Your task to perform on an android device: add a contact in the contacts app Image 0: 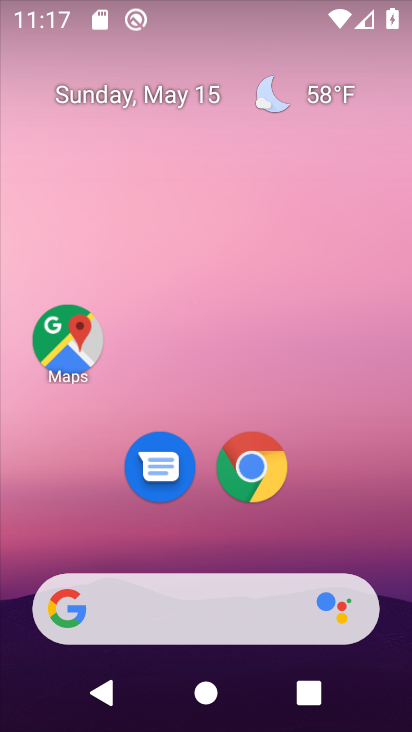
Step 0: drag from (210, 554) to (206, 103)
Your task to perform on an android device: add a contact in the contacts app Image 1: 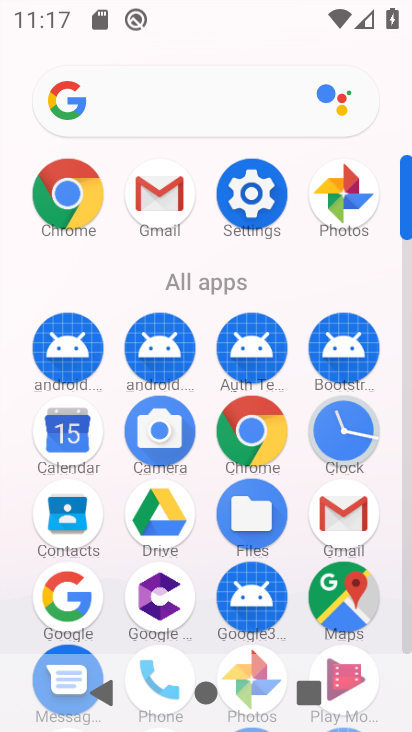
Step 1: drag from (202, 634) to (184, 183)
Your task to perform on an android device: add a contact in the contacts app Image 2: 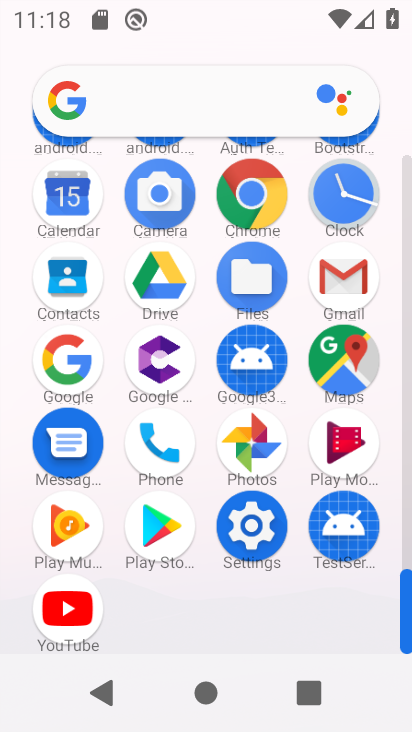
Step 2: click (62, 271)
Your task to perform on an android device: add a contact in the contacts app Image 3: 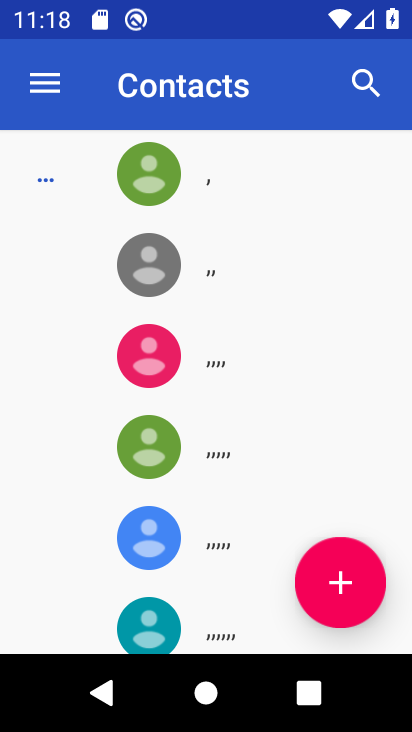
Step 3: click (339, 579)
Your task to perform on an android device: add a contact in the contacts app Image 4: 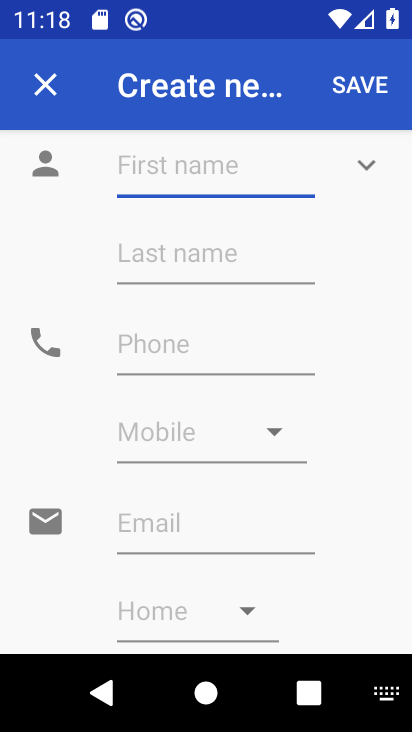
Step 4: type "mnvfxd"
Your task to perform on an android device: add a contact in the contacts app Image 5: 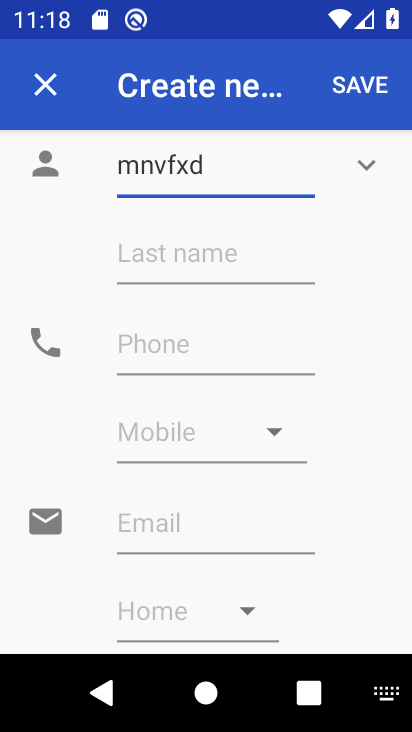
Step 5: click (361, 106)
Your task to perform on an android device: add a contact in the contacts app Image 6: 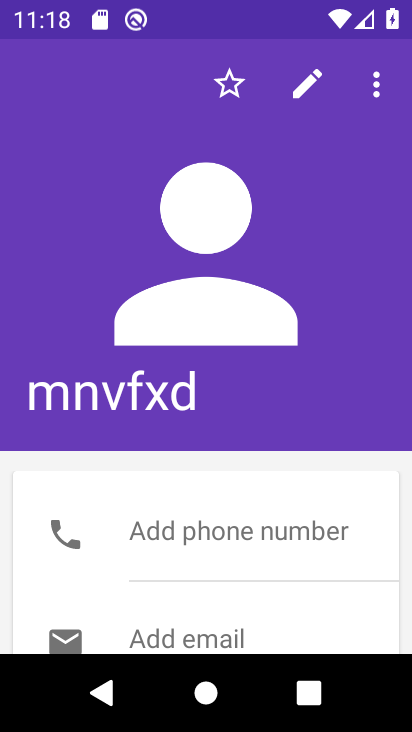
Step 6: task complete